Your task to perform on an android device: add a contact in the contacts app Image 0: 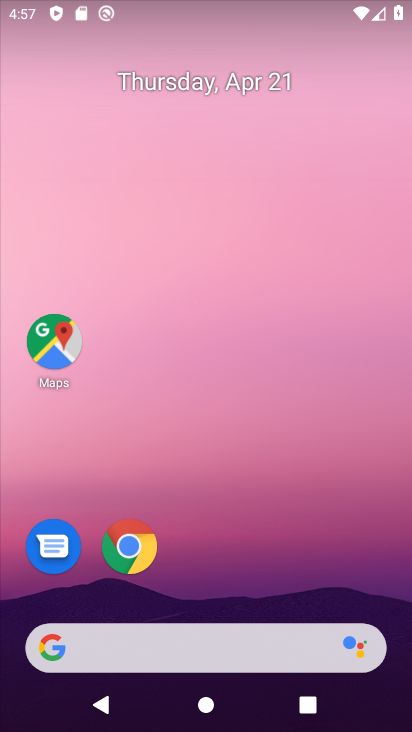
Step 0: drag from (253, 580) to (273, 38)
Your task to perform on an android device: add a contact in the contacts app Image 1: 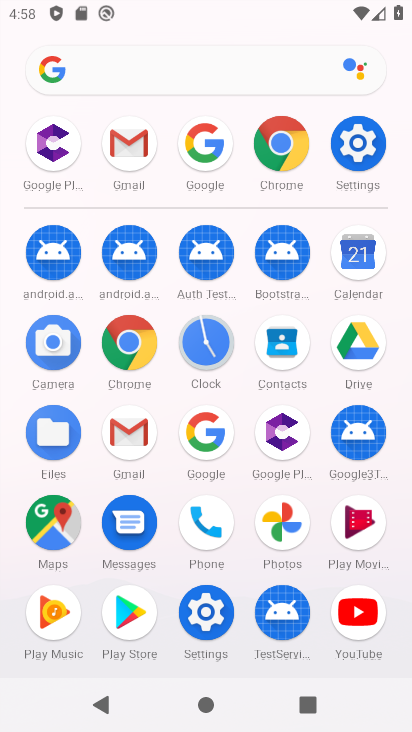
Step 1: click (284, 346)
Your task to perform on an android device: add a contact in the contacts app Image 2: 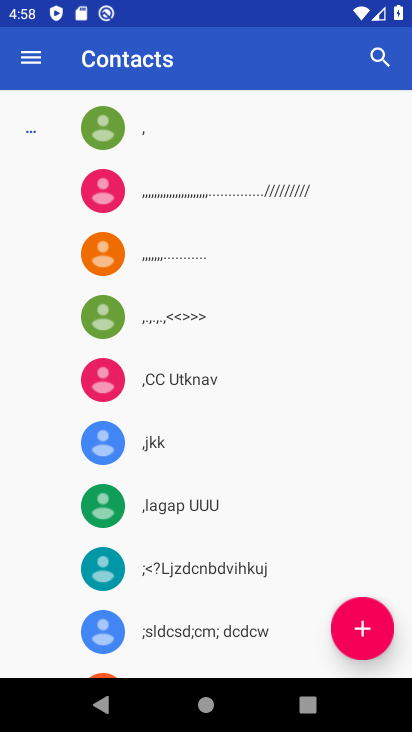
Step 2: click (366, 624)
Your task to perform on an android device: add a contact in the contacts app Image 3: 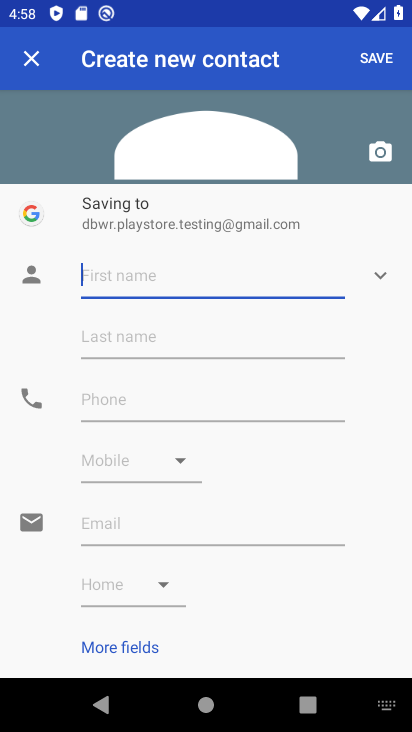
Step 3: type "ertyuhgfd"
Your task to perform on an android device: add a contact in the contacts app Image 4: 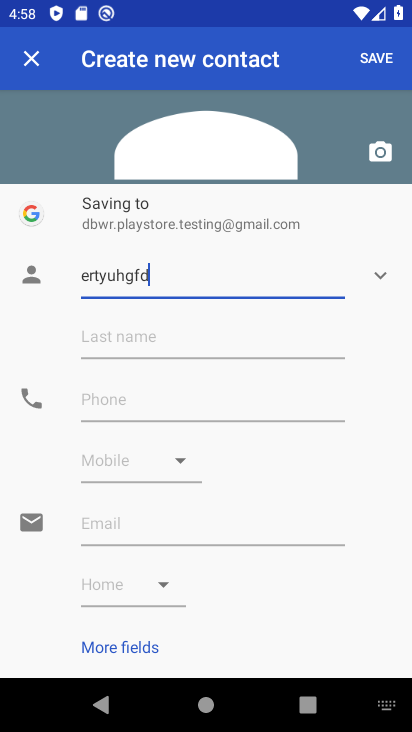
Step 4: click (161, 411)
Your task to perform on an android device: add a contact in the contacts app Image 5: 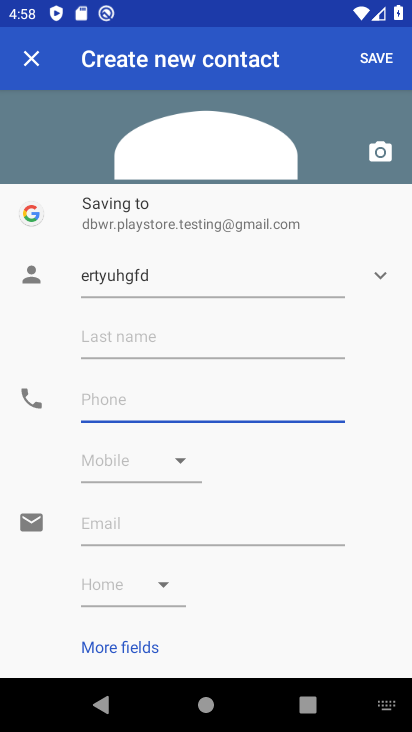
Step 5: type "567865456787"
Your task to perform on an android device: add a contact in the contacts app Image 6: 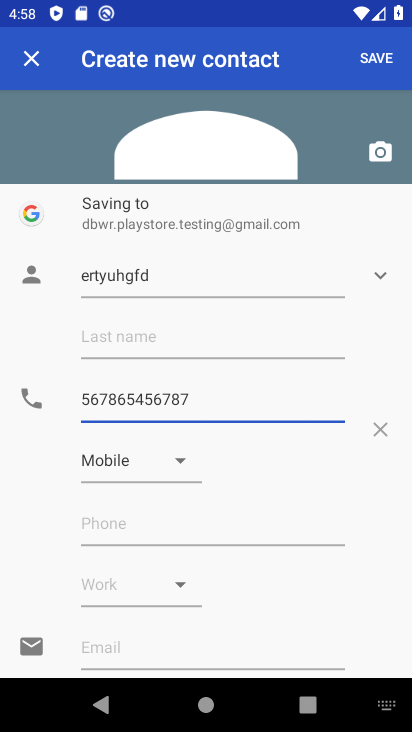
Step 6: click (388, 55)
Your task to perform on an android device: add a contact in the contacts app Image 7: 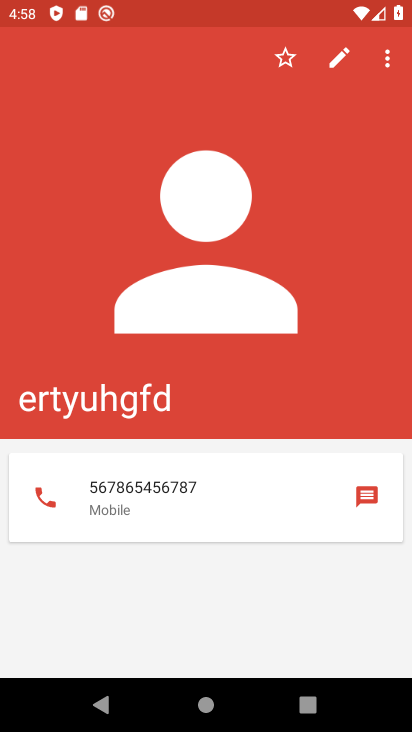
Step 7: task complete